Your task to perform on an android device: open app "Microsoft Authenticator" Image 0: 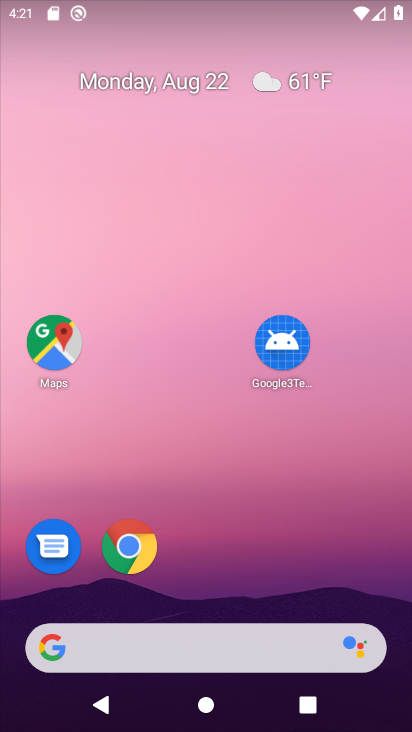
Step 0: drag from (398, 631) to (344, 172)
Your task to perform on an android device: open app "Microsoft Authenticator" Image 1: 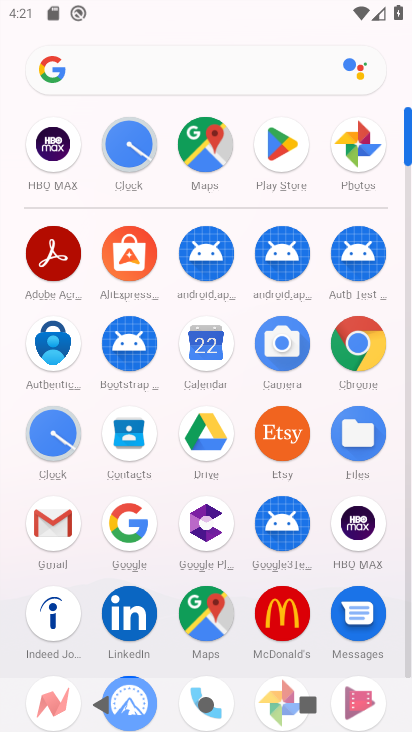
Step 1: click (410, 624)
Your task to perform on an android device: open app "Microsoft Authenticator" Image 2: 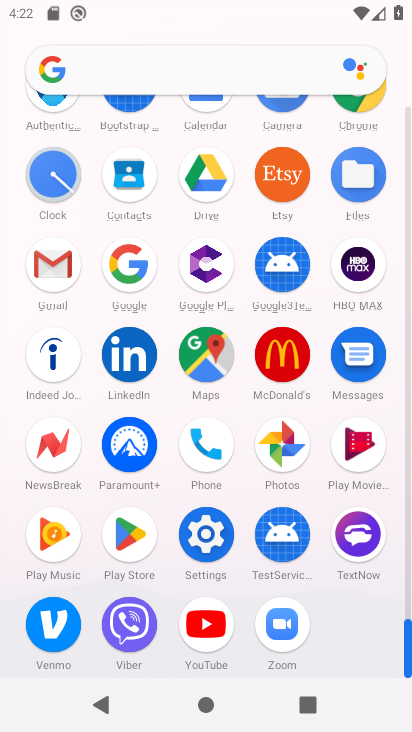
Step 2: click (126, 533)
Your task to perform on an android device: open app "Microsoft Authenticator" Image 3: 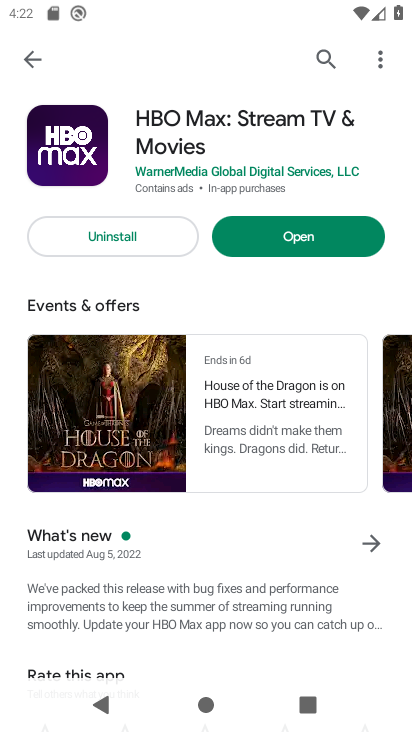
Step 3: click (321, 55)
Your task to perform on an android device: open app "Microsoft Authenticator" Image 4: 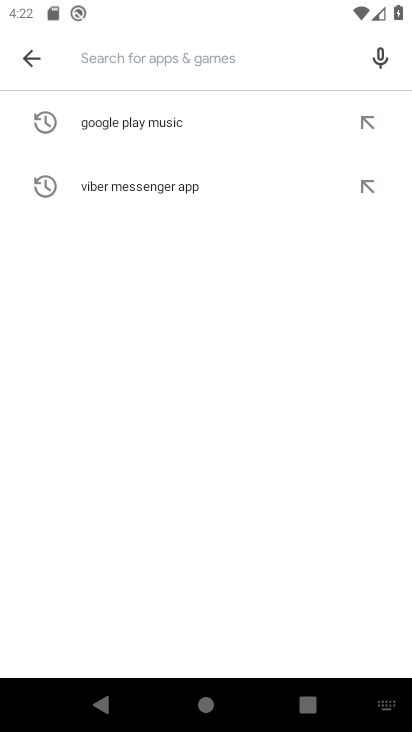
Step 4: type "Microsoft Authenticator"
Your task to perform on an android device: open app "Microsoft Authenticator" Image 5: 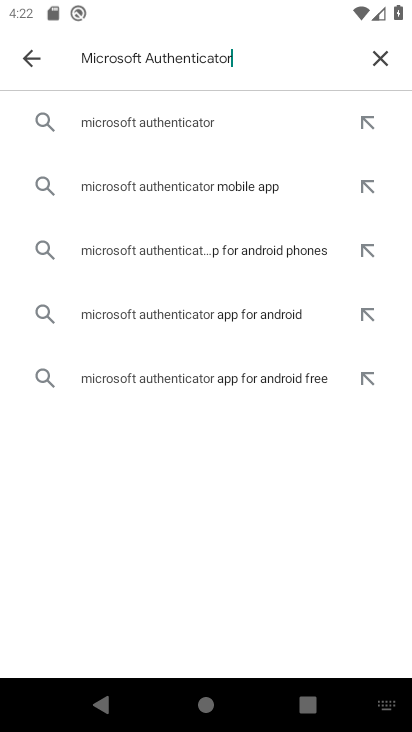
Step 5: click (128, 134)
Your task to perform on an android device: open app "Microsoft Authenticator" Image 6: 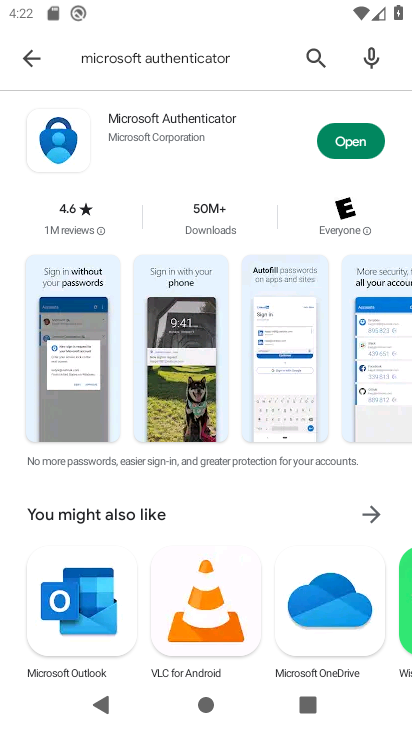
Step 6: click (350, 140)
Your task to perform on an android device: open app "Microsoft Authenticator" Image 7: 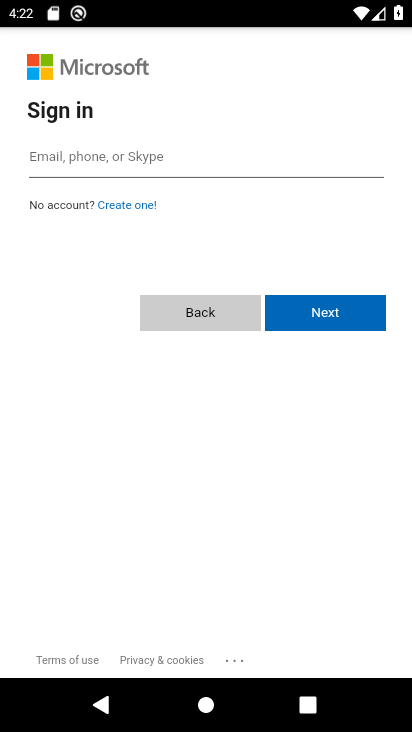
Step 7: task complete